Your task to perform on an android device: turn off notifications in google photos Image 0: 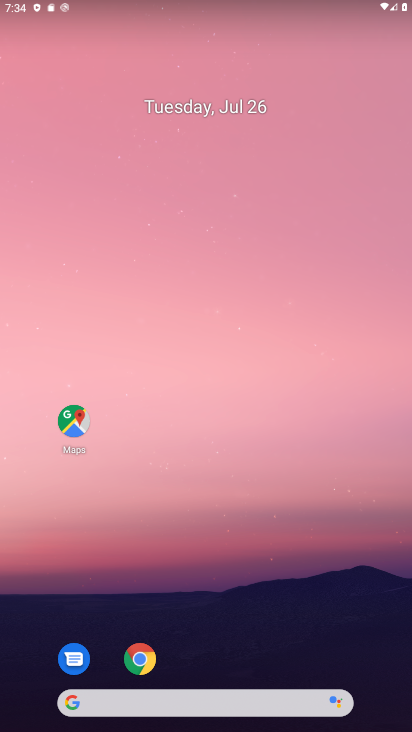
Step 0: drag from (233, 673) to (203, 4)
Your task to perform on an android device: turn off notifications in google photos Image 1: 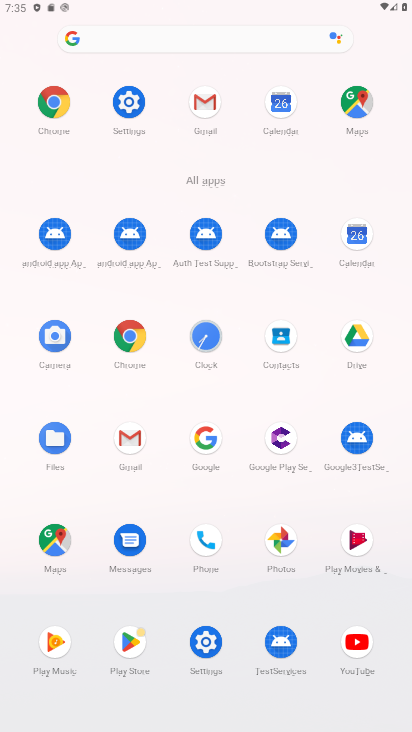
Step 1: click (287, 553)
Your task to perform on an android device: turn off notifications in google photos Image 2: 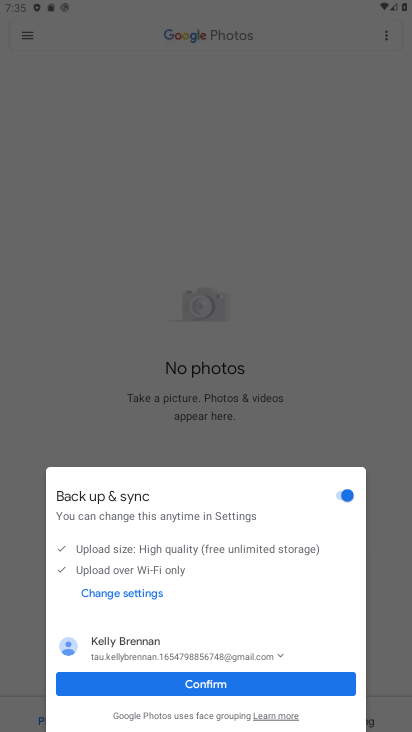
Step 2: click (170, 678)
Your task to perform on an android device: turn off notifications in google photos Image 3: 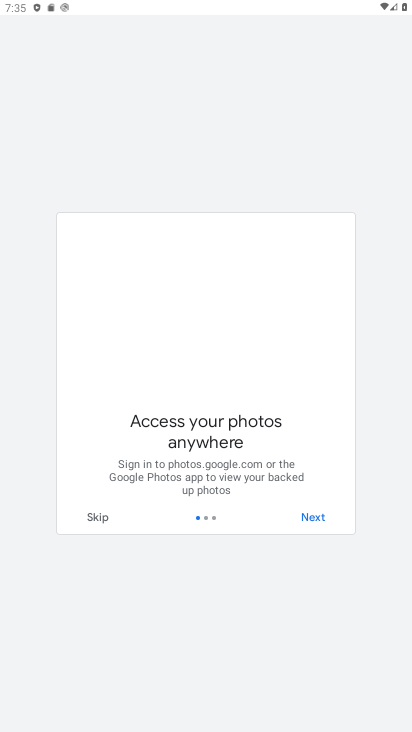
Step 3: click (305, 514)
Your task to perform on an android device: turn off notifications in google photos Image 4: 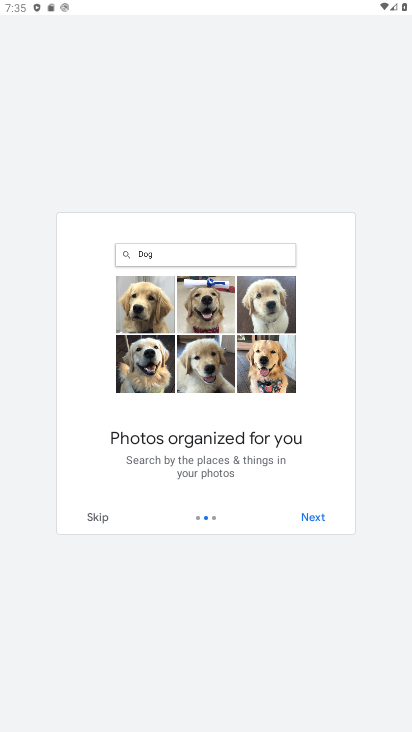
Step 4: click (317, 521)
Your task to perform on an android device: turn off notifications in google photos Image 5: 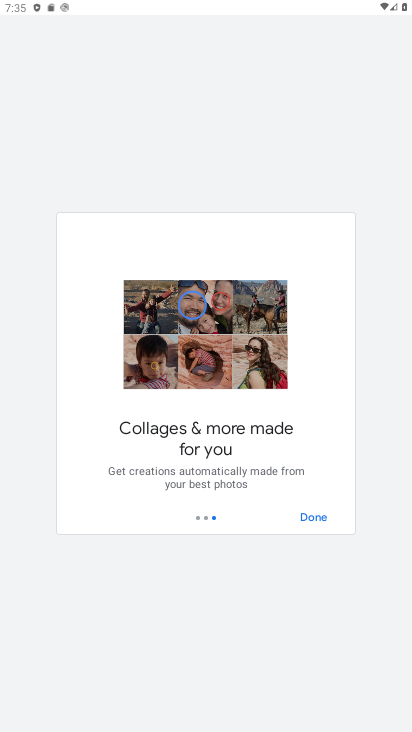
Step 5: click (317, 521)
Your task to perform on an android device: turn off notifications in google photos Image 6: 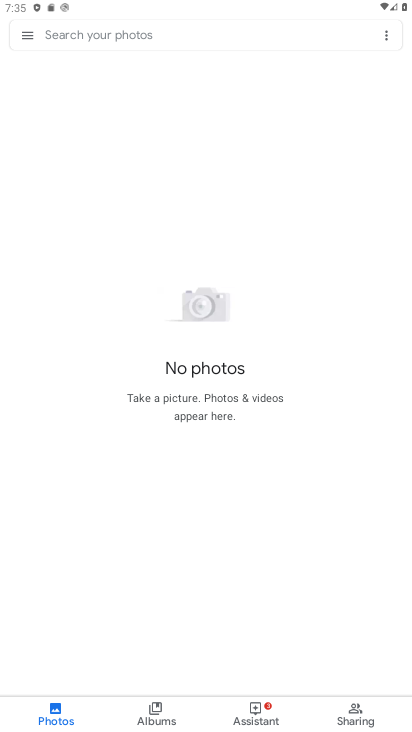
Step 6: click (32, 32)
Your task to perform on an android device: turn off notifications in google photos Image 7: 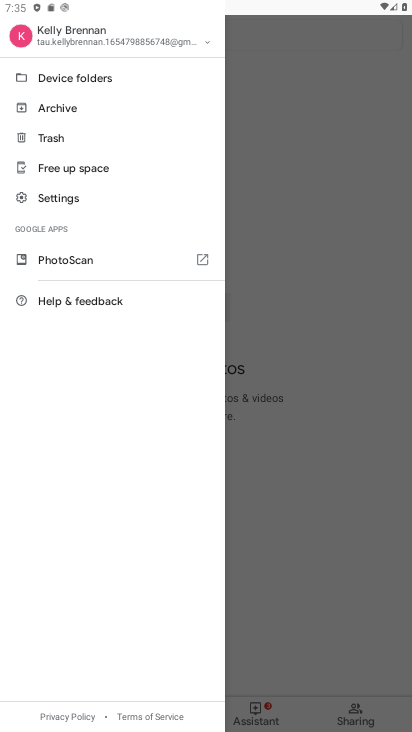
Step 7: click (41, 190)
Your task to perform on an android device: turn off notifications in google photos Image 8: 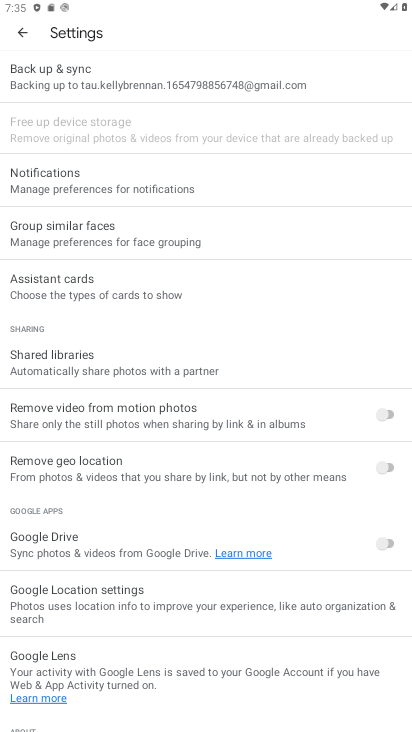
Step 8: click (49, 187)
Your task to perform on an android device: turn off notifications in google photos Image 9: 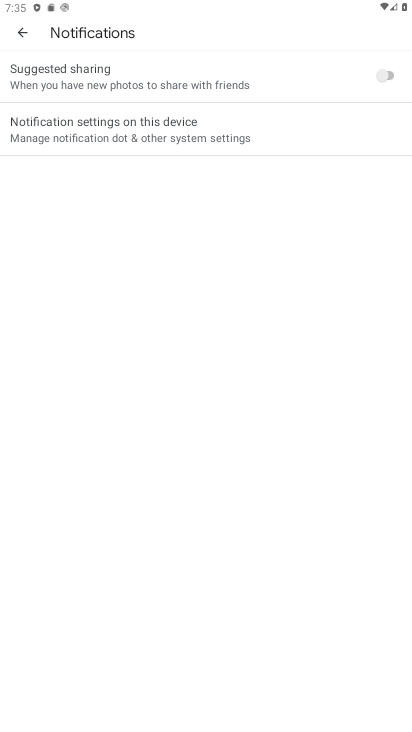
Step 9: click (257, 147)
Your task to perform on an android device: turn off notifications in google photos Image 10: 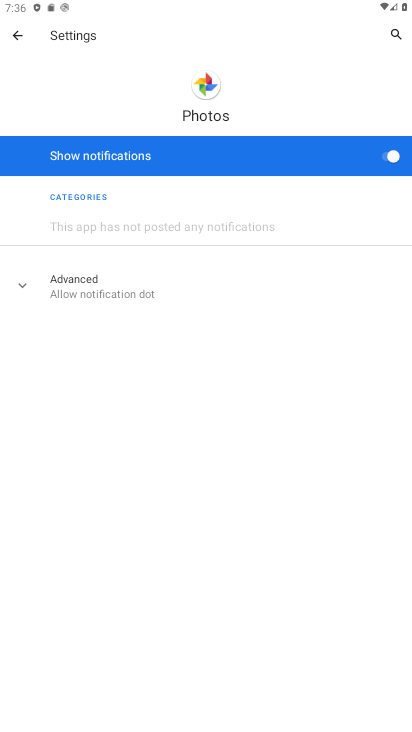
Step 10: click (382, 159)
Your task to perform on an android device: turn off notifications in google photos Image 11: 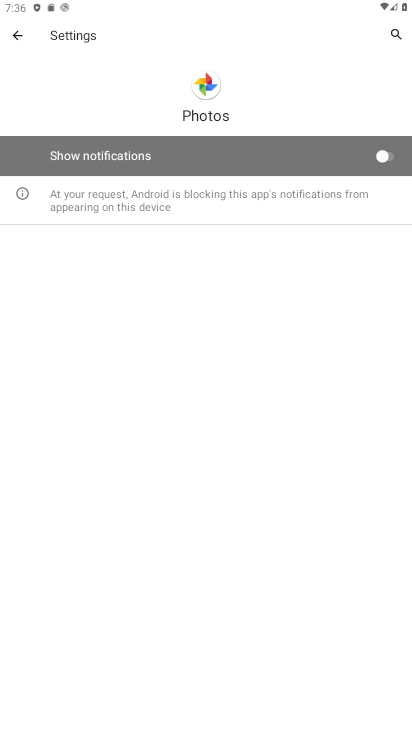
Step 11: task complete